Your task to perform on an android device: Turn off the flashlight Image 0: 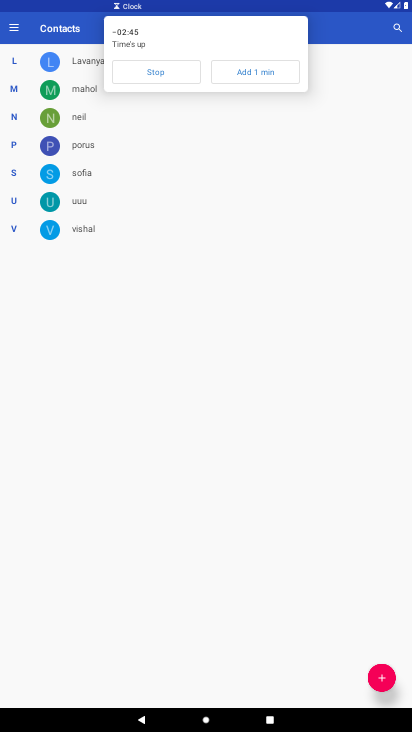
Step 0: drag from (321, 7) to (388, 624)
Your task to perform on an android device: Turn off the flashlight Image 1: 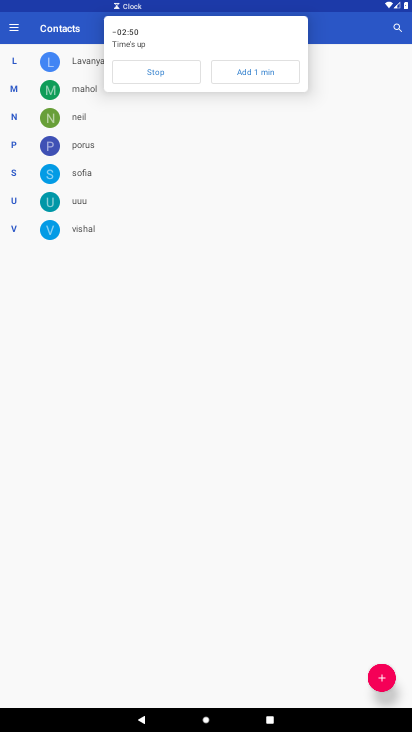
Step 1: click (180, 68)
Your task to perform on an android device: Turn off the flashlight Image 2: 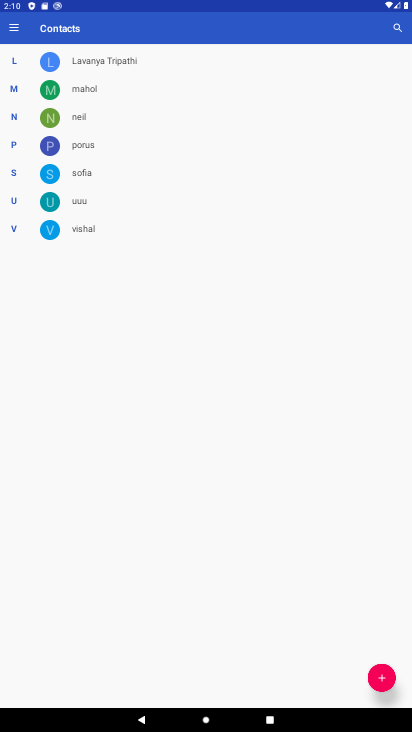
Step 2: task complete